Your task to perform on an android device: Open Wikipedia Image 0: 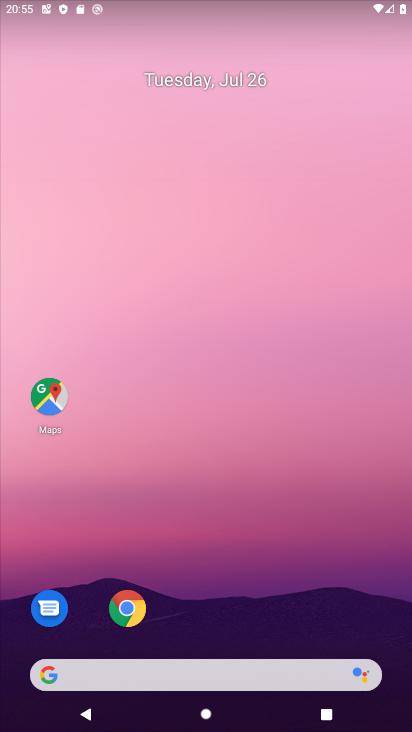
Step 0: click (130, 675)
Your task to perform on an android device: Open Wikipedia Image 1: 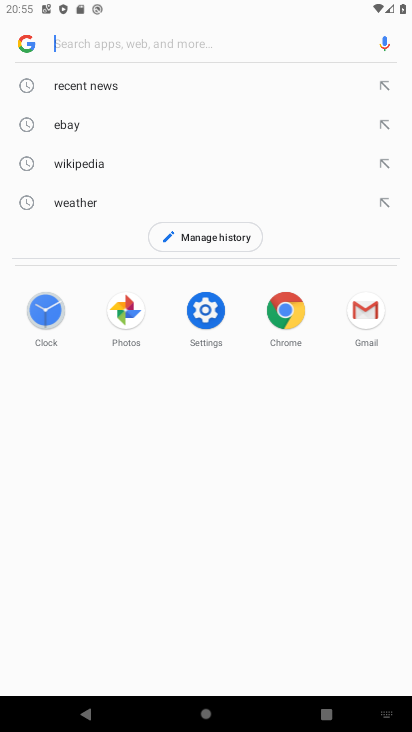
Step 1: type "Wikipedia"
Your task to perform on an android device: Open Wikipedia Image 2: 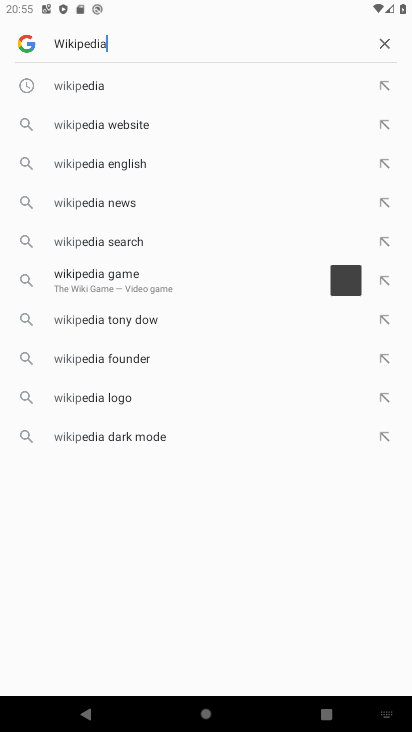
Step 2: type ""
Your task to perform on an android device: Open Wikipedia Image 3: 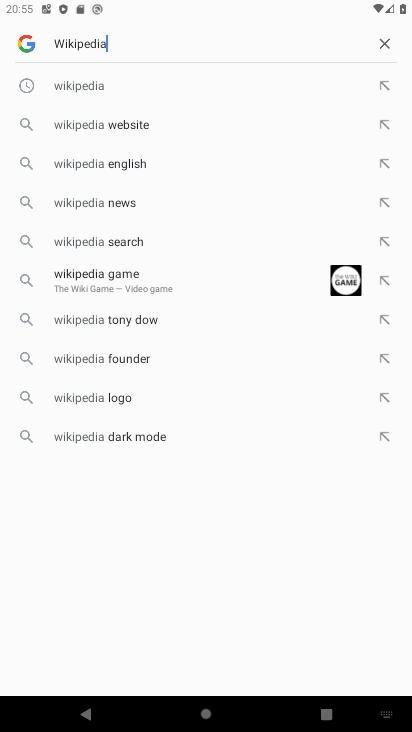
Step 3: click (83, 92)
Your task to perform on an android device: Open Wikipedia Image 4: 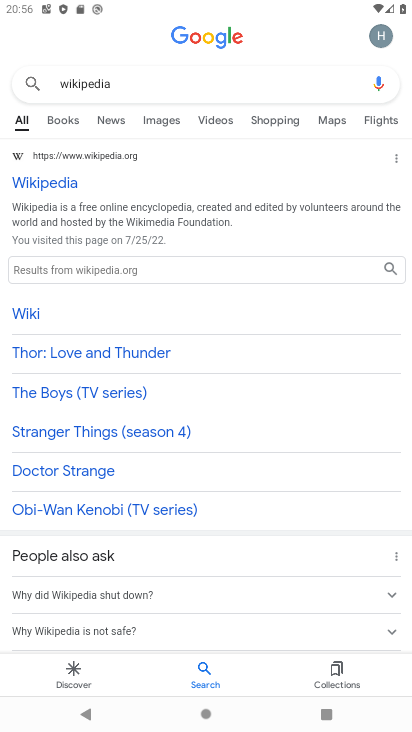
Step 4: task complete